Your task to perform on an android device: Check the news Image 0: 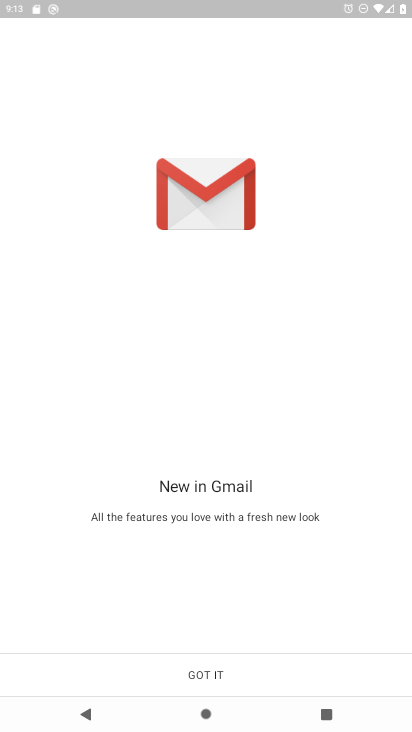
Step 0: press home button
Your task to perform on an android device: Check the news Image 1: 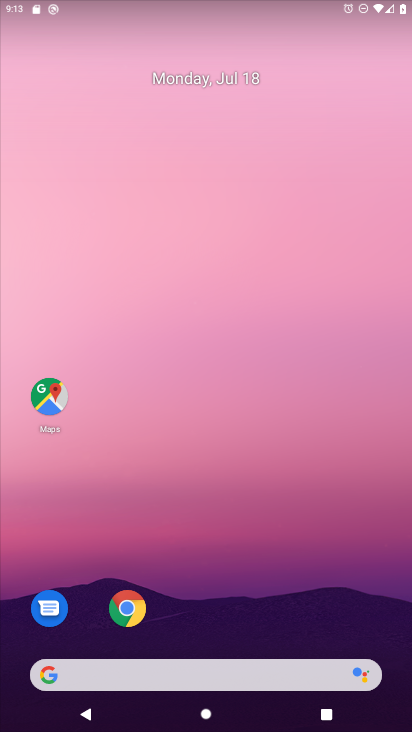
Step 1: task complete